Your task to perform on an android device: Do I have any events this weekend? Image 0: 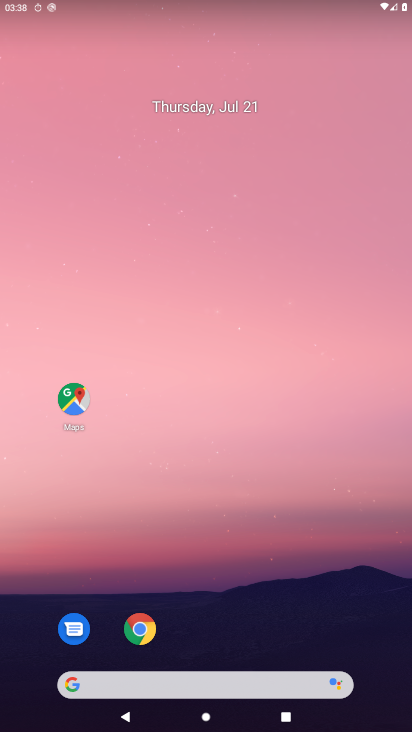
Step 0: drag from (38, 670) to (278, 6)
Your task to perform on an android device: Do I have any events this weekend? Image 1: 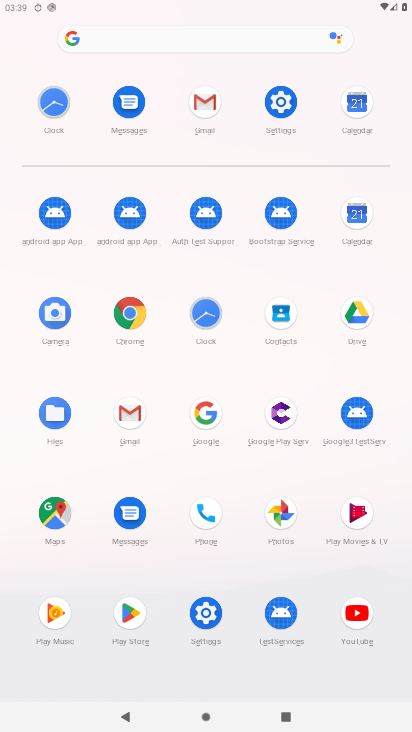
Step 1: click (362, 223)
Your task to perform on an android device: Do I have any events this weekend? Image 2: 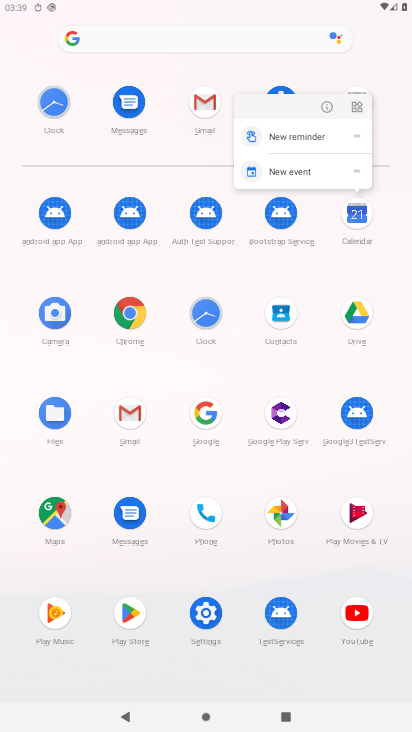
Step 2: click (368, 225)
Your task to perform on an android device: Do I have any events this weekend? Image 3: 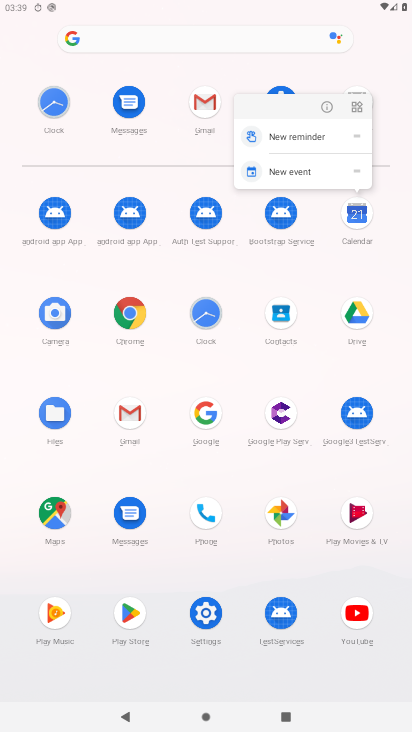
Step 3: click (367, 225)
Your task to perform on an android device: Do I have any events this weekend? Image 4: 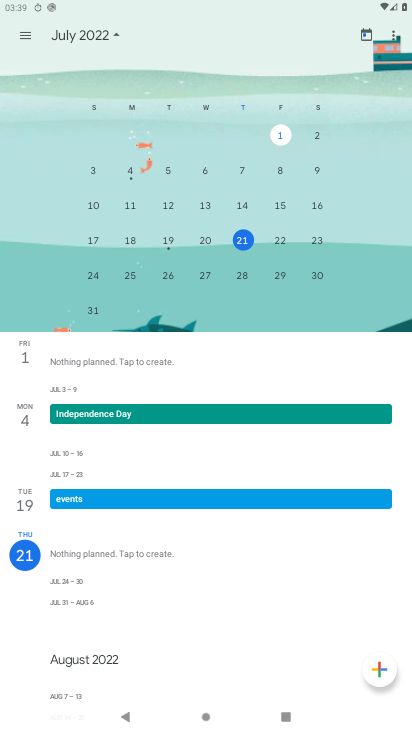
Step 4: task complete